Your task to perform on an android device: check out phone information Image 0: 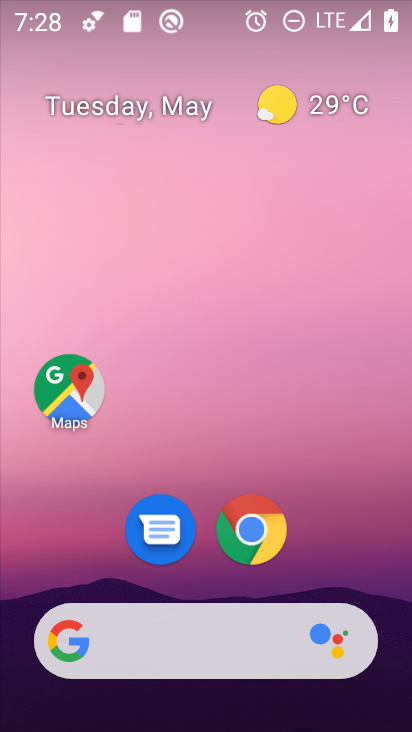
Step 0: drag from (375, 556) to (255, 51)
Your task to perform on an android device: check out phone information Image 1: 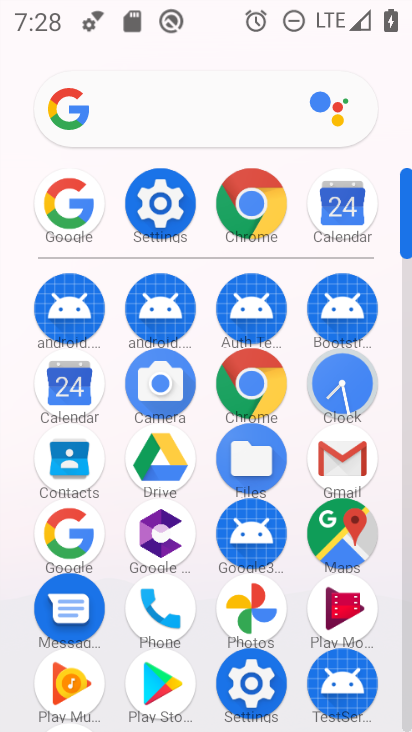
Step 1: click (243, 687)
Your task to perform on an android device: check out phone information Image 2: 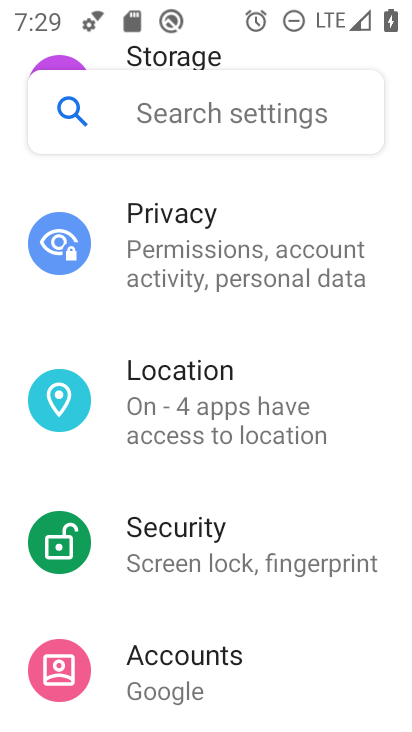
Step 2: task complete